Your task to perform on an android device: all mails in gmail Image 0: 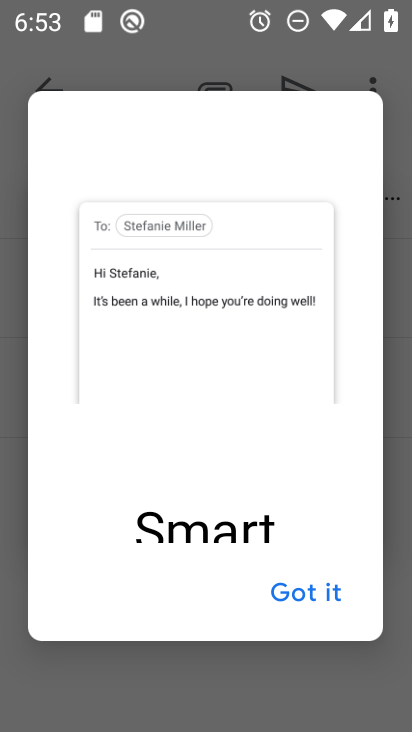
Step 0: press home button
Your task to perform on an android device: all mails in gmail Image 1: 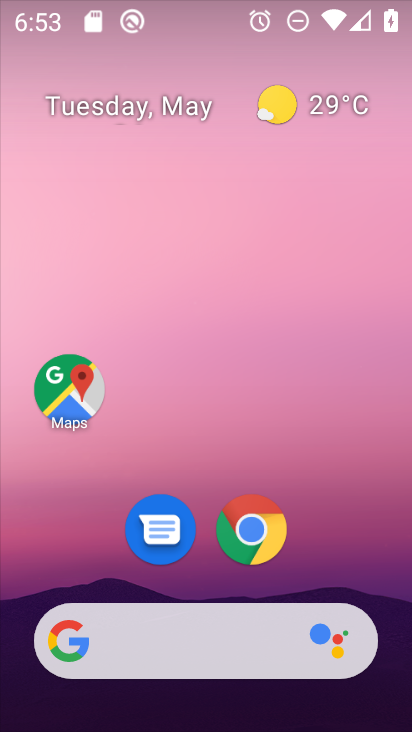
Step 1: drag from (392, 622) to (220, 16)
Your task to perform on an android device: all mails in gmail Image 2: 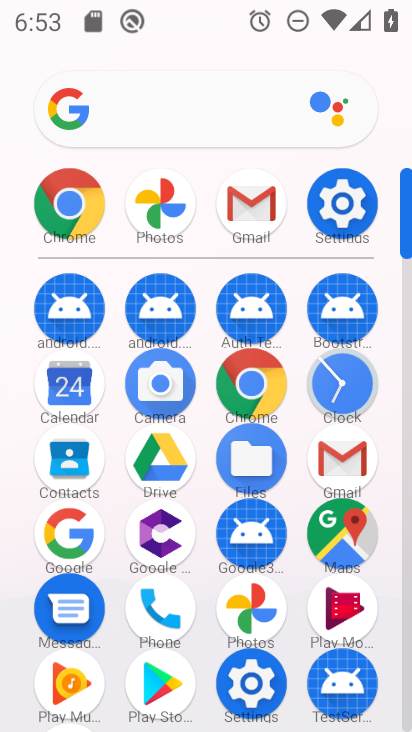
Step 2: click (346, 476)
Your task to perform on an android device: all mails in gmail Image 3: 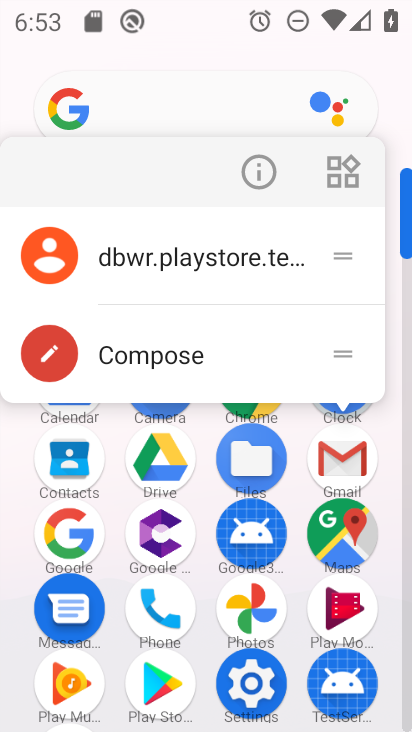
Step 3: click (346, 476)
Your task to perform on an android device: all mails in gmail Image 4: 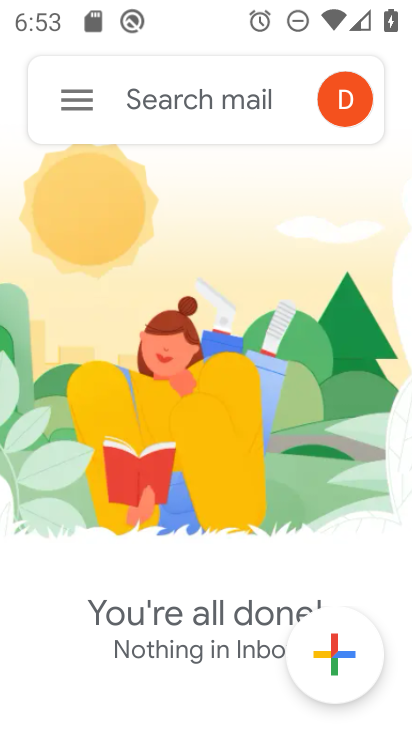
Step 4: click (68, 105)
Your task to perform on an android device: all mails in gmail Image 5: 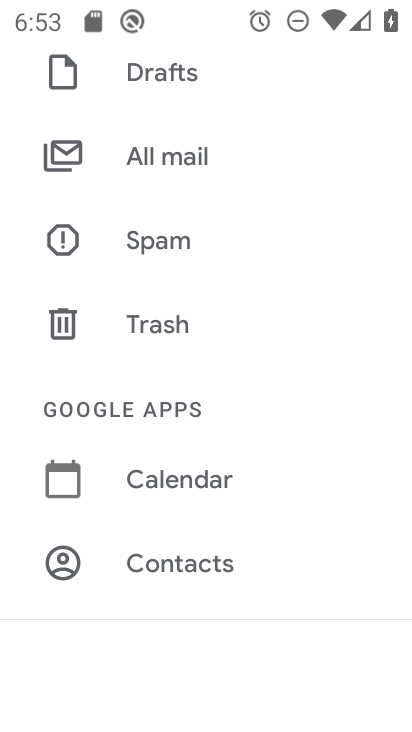
Step 5: click (207, 148)
Your task to perform on an android device: all mails in gmail Image 6: 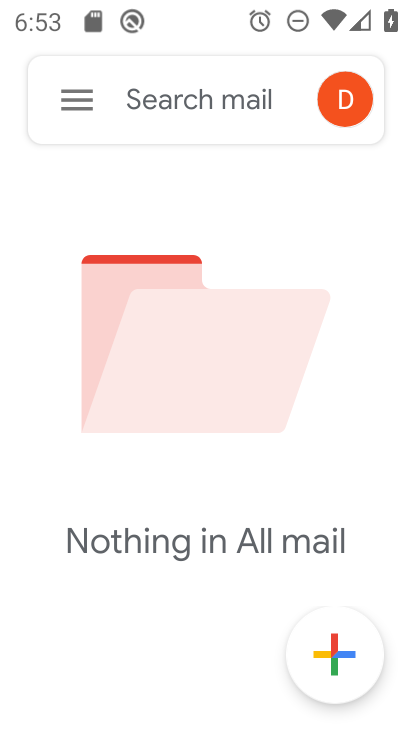
Step 6: task complete